Your task to perform on an android device: Check the weather Image 0: 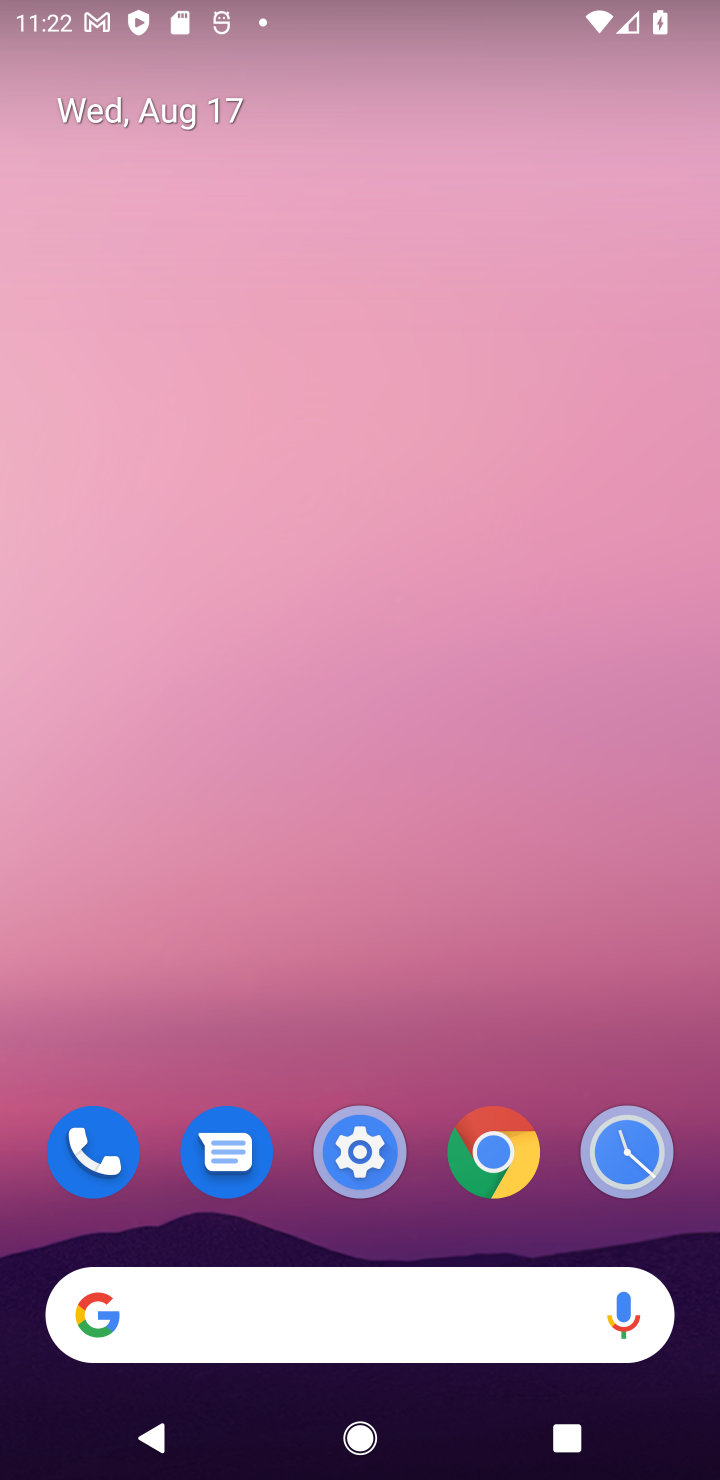
Step 0: drag from (563, 1216) to (299, 61)
Your task to perform on an android device: Check the weather Image 1: 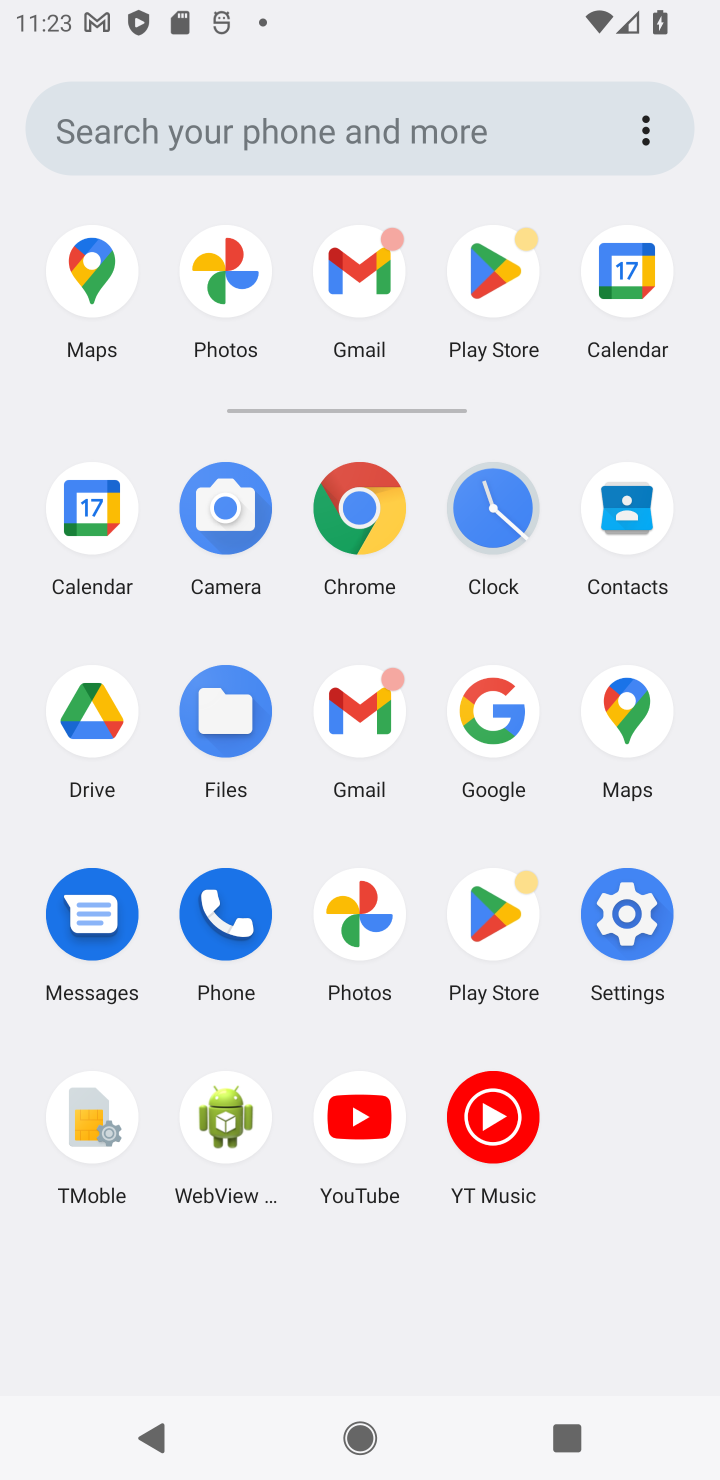
Step 1: click (365, 557)
Your task to perform on an android device: Check the weather Image 2: 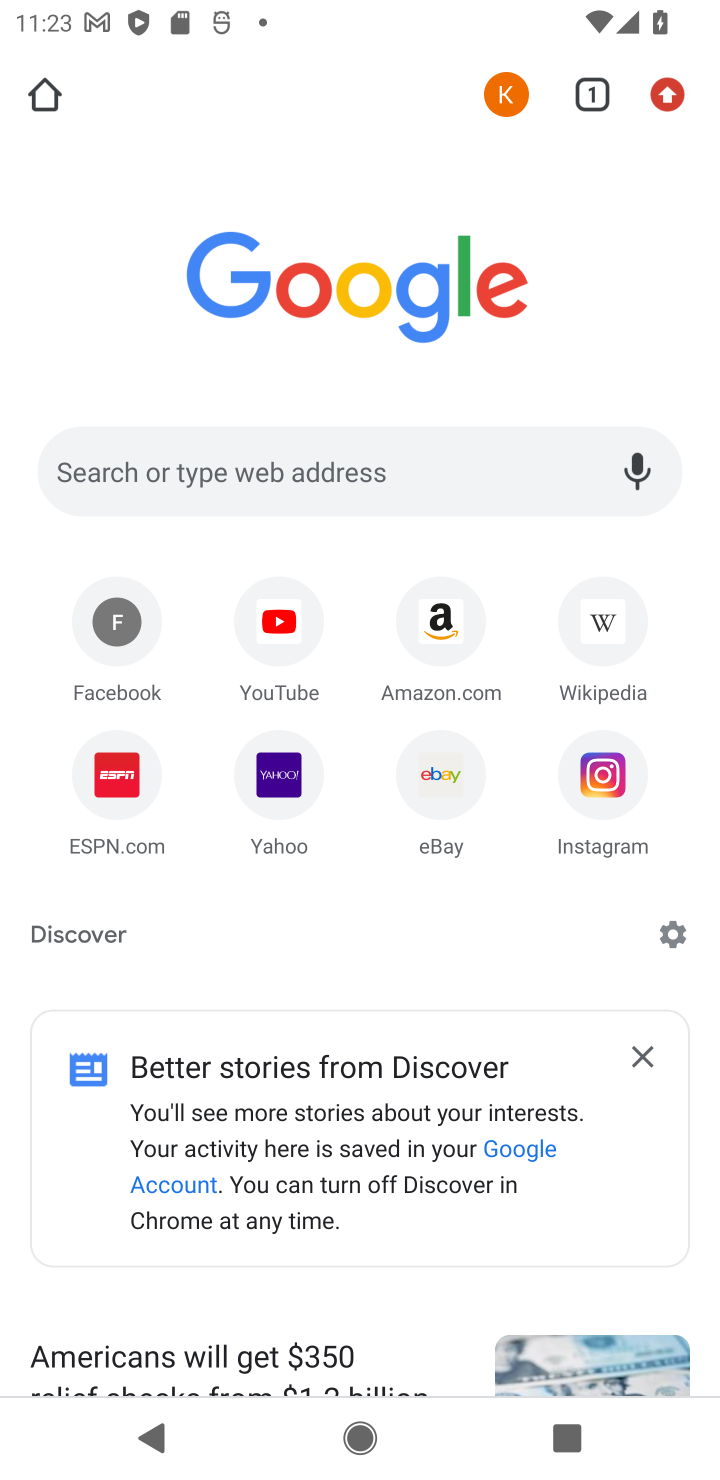
Step 2: click (288, 468)
Your task to perform on an android device: Check the weather Image 3: 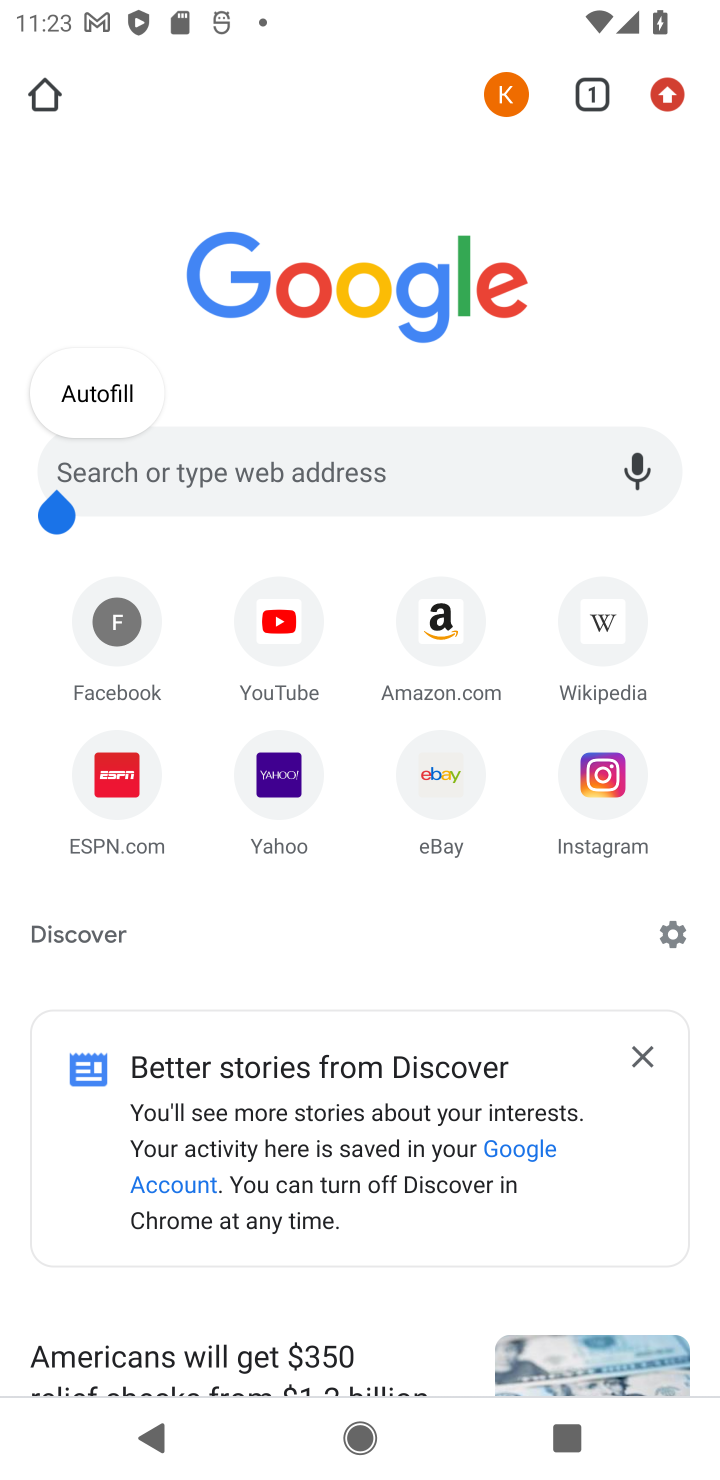
Step 3: click (239, 476)
Your task to perform on an android device: Check the weather Image 4: 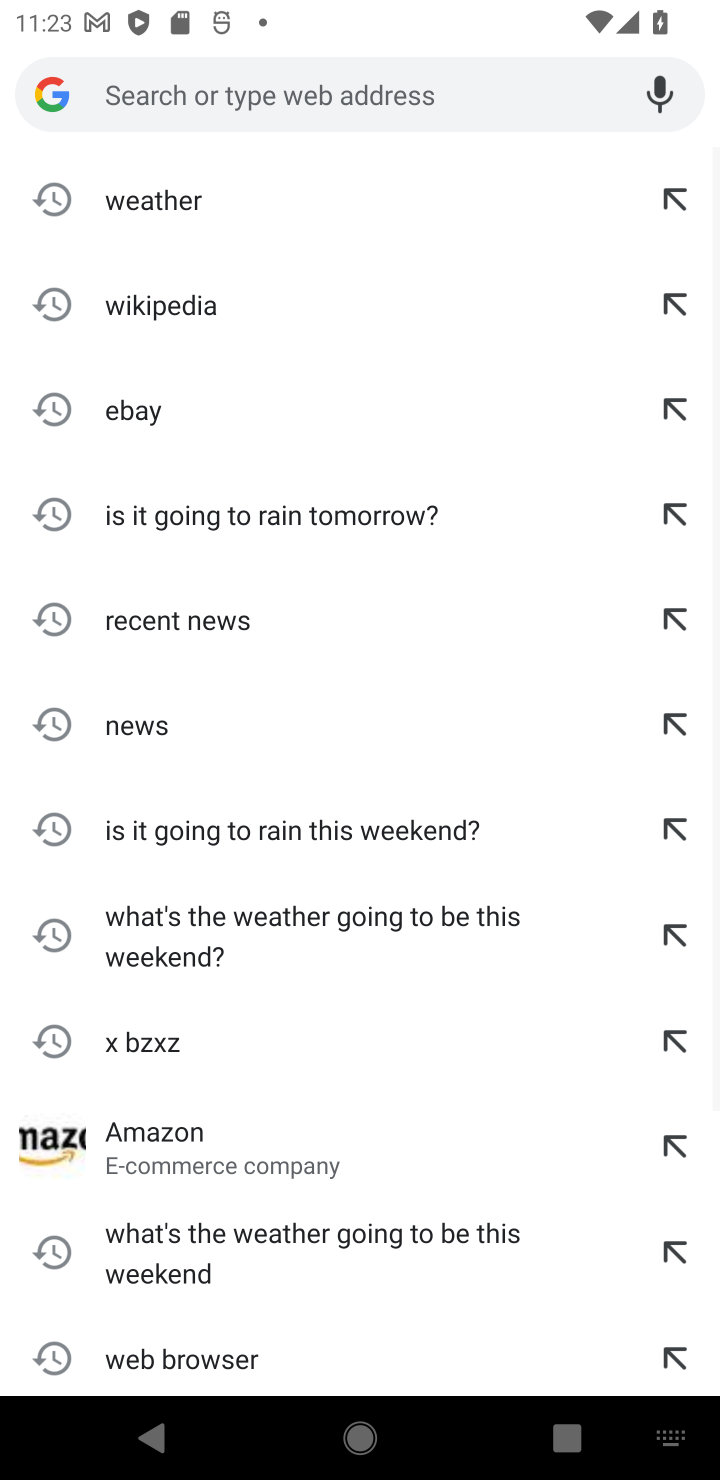
Step 4: click (144, 195)
Your task to perform on an android device: Check the weather Image 5: 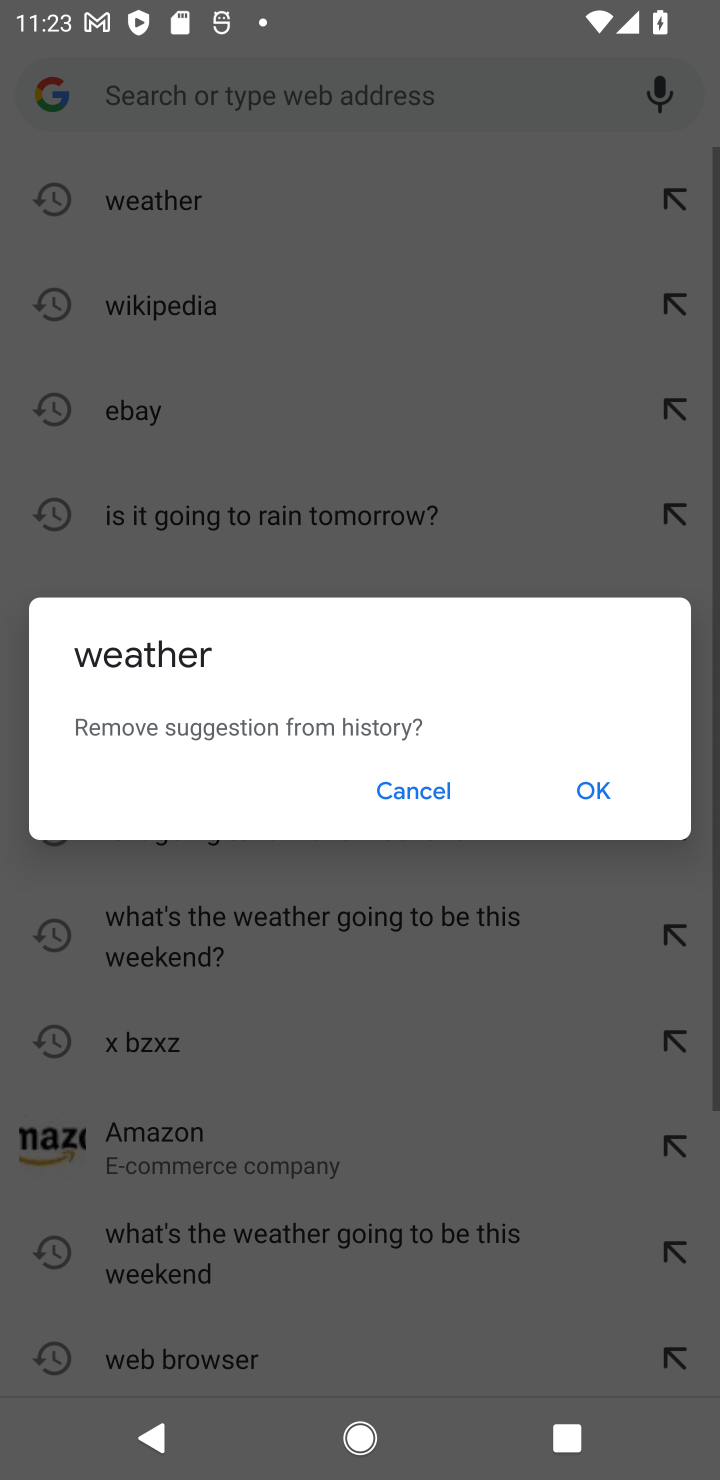
Step 5: click (591, 770)
Your task to perform on an android device: Check the weather Image 6: 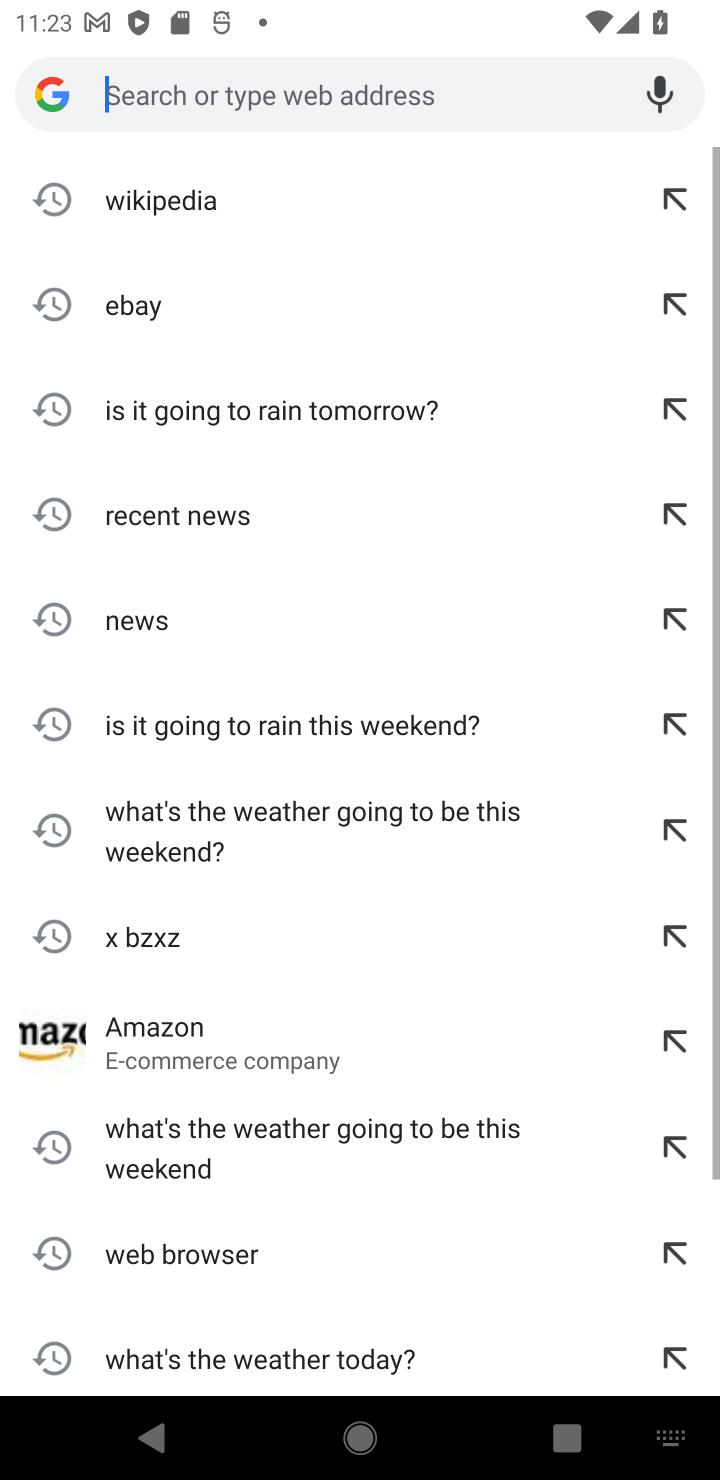
Step 6: click (187, 213)
Your task to perform on an android device: Check the weather Image 7: 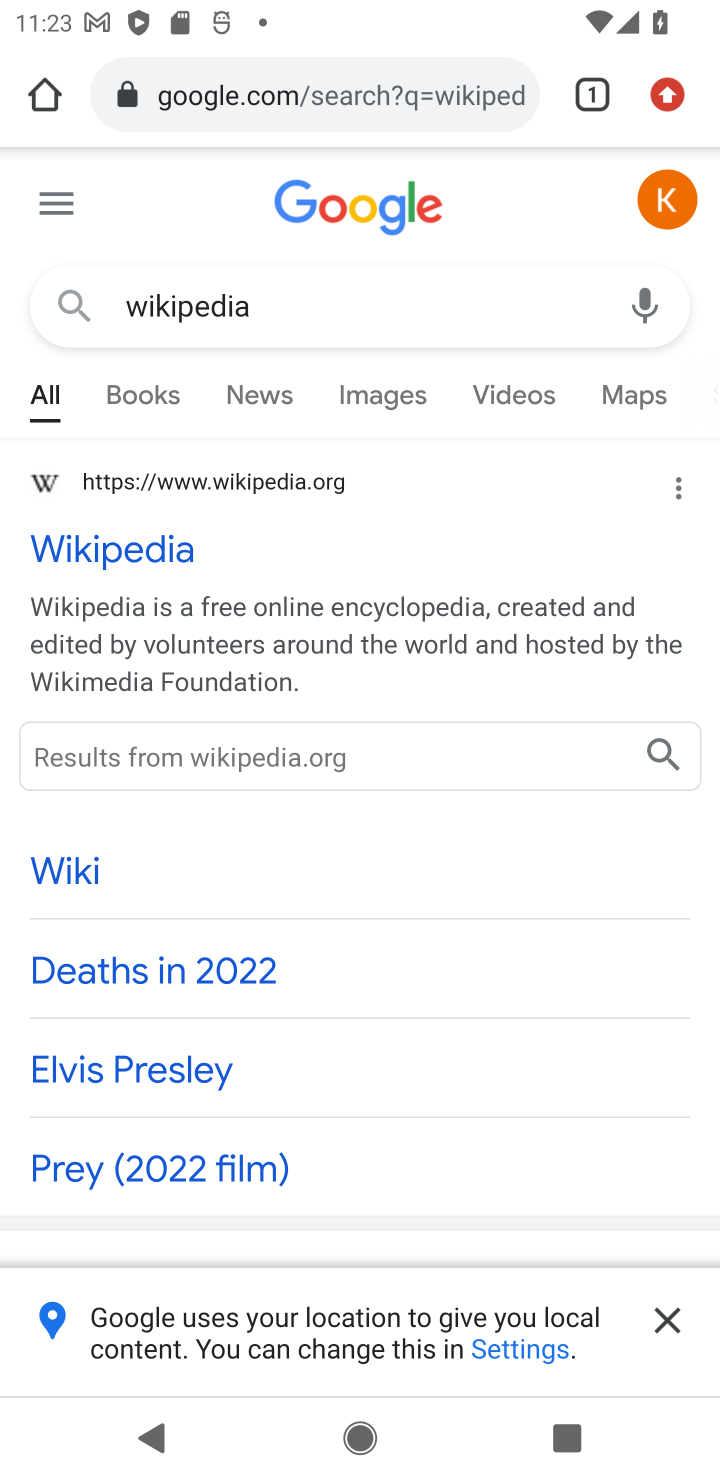
Step 7: task complete